Your task to perform on an android device: change text size in settings app Image 0: 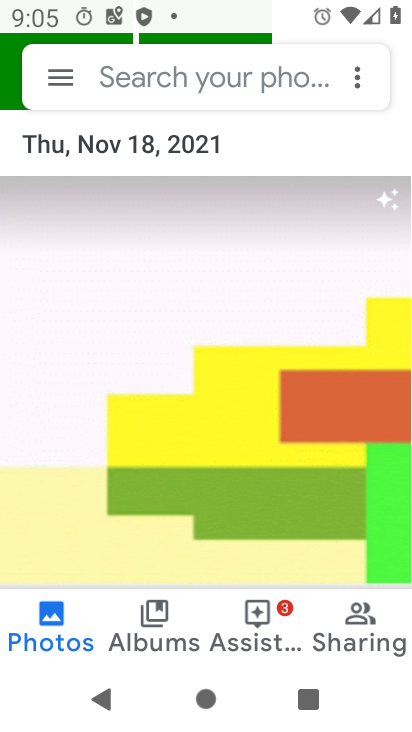
Step 0: press back button
Your task to perform on an android device: change text size in settings app Image 1: 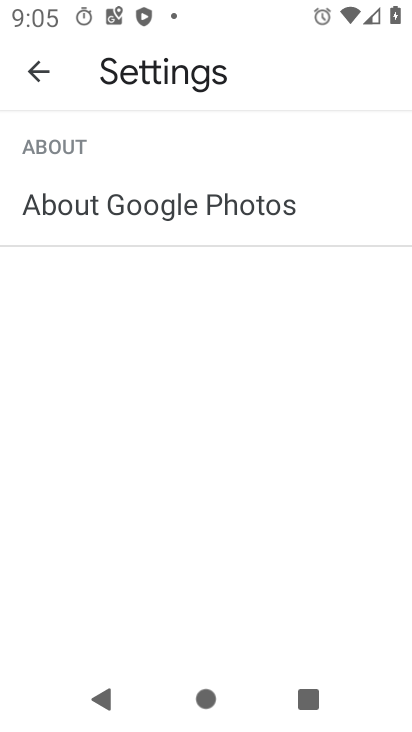
Step 1: press back button
Your task to perform on an android device: change text size in settings app Image 2: 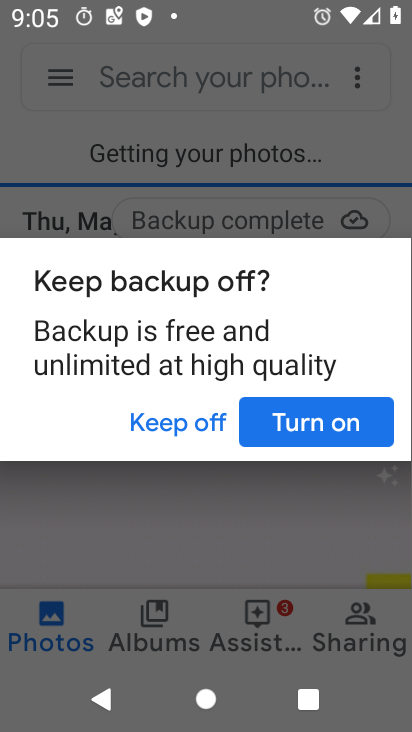
Step 2: press home button
Your task to perform on an android device: change text size in settings app Image 3: 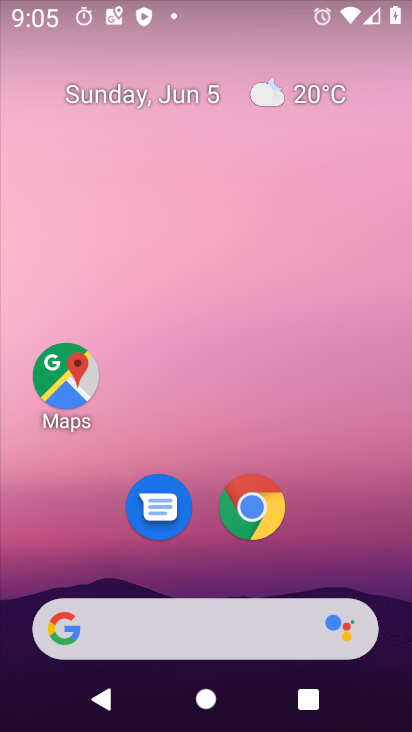
Step 3: drag from (375, 549) to (278, 6)
Your task to perform on an android device: change text size in settings app Image 4: 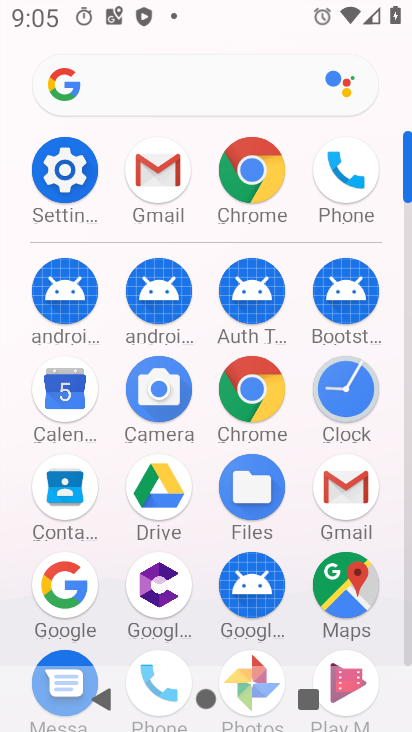
Step 4: click (67, 168)
Your task to perform on an android device: change text size in settings app Image 5: 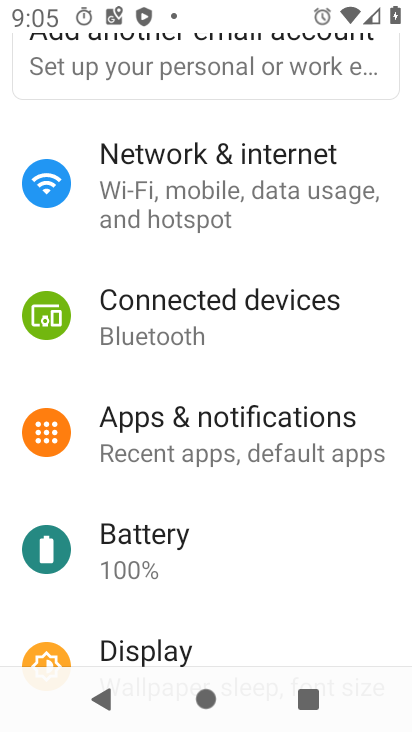
Step 5: drag from (288, 582) to (292, 168)
Your task to perform on an android device: change text size in settings app Image 6: 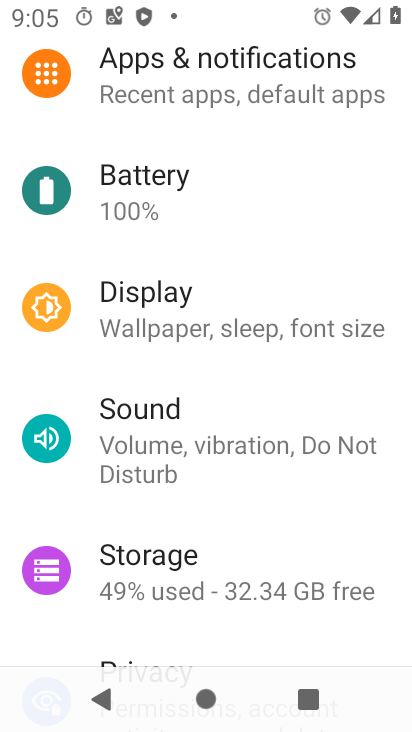
Step 6: click (206, 328)
Your task to perform on an android device: change text size in settings app Image 7: 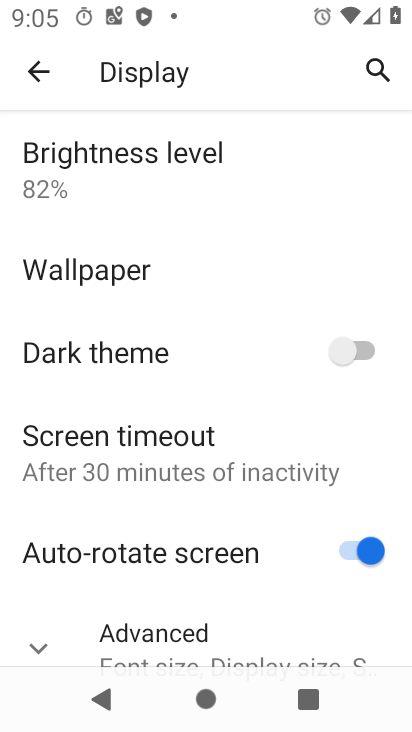
Step 7: click (34, 626)
Your task to perform on an android device: change text size in settings app Image 8: 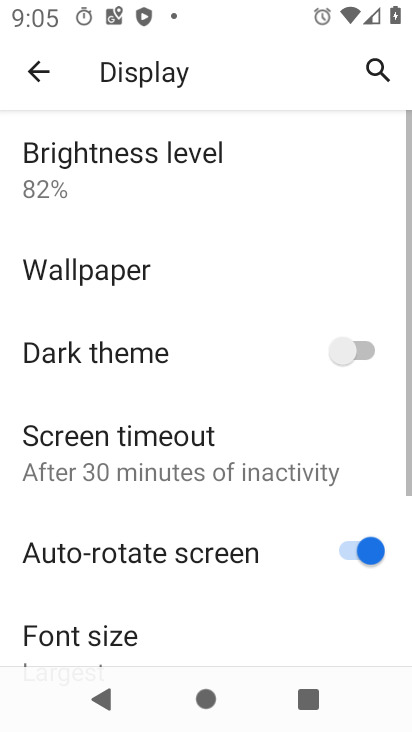
Step 8: drag from (218, 582) to (229, 112)
Your task to perform on an android device: change text size in settings app Image 9: 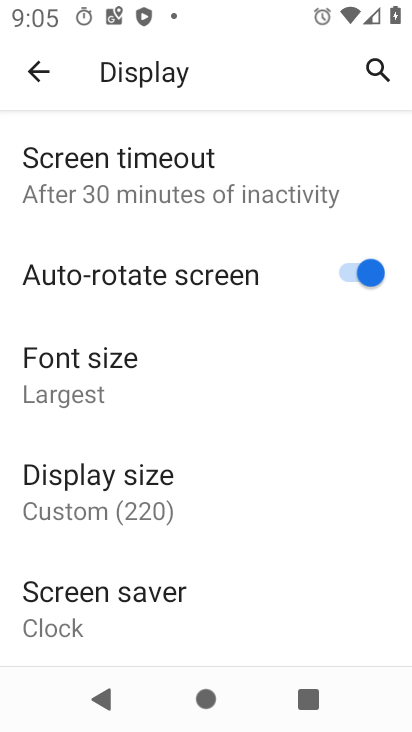
Step 9: click (130, 375)
Your task to perform on an android device: change text size in settings app Image 10: 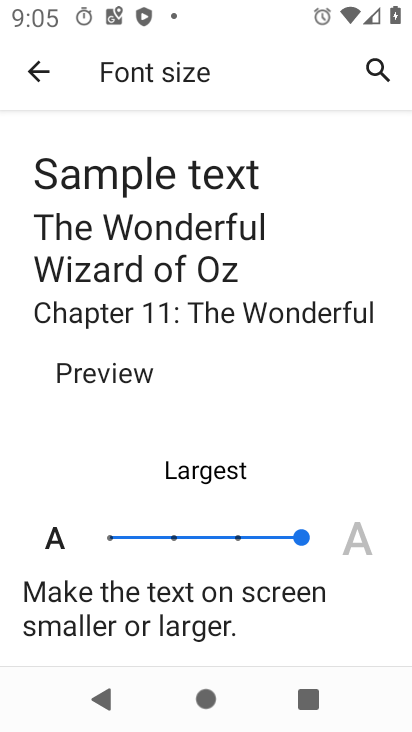
Step 10: click (242, 536)
Your task to perform on an android device: change text size in settings app Image 11: 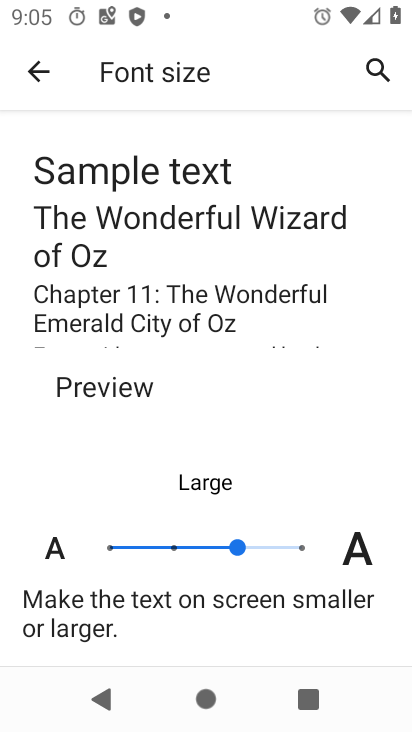
Step 11: task complete